Your task to perform on an android device: turn notification dots on Image 0: 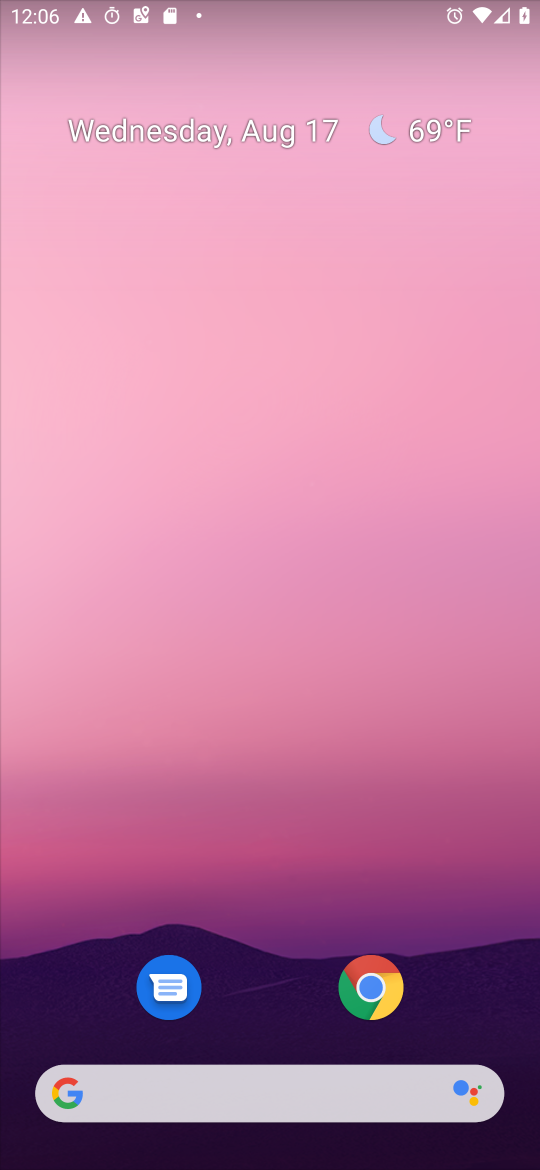
Step 0: drag from (177, 851) to (235, 601)
Your task to perform on an android device: turn notification dots on Image 1: 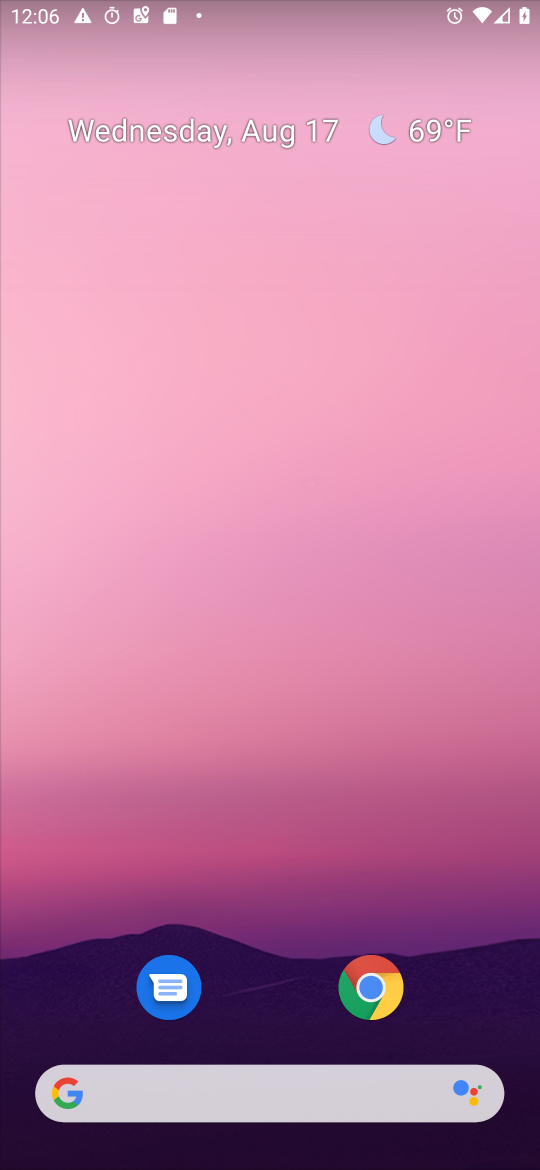
Step 1: drag from (20, 1166) to (204, 633)
Your task to perform on an android device: turn notification dots on Image 2: 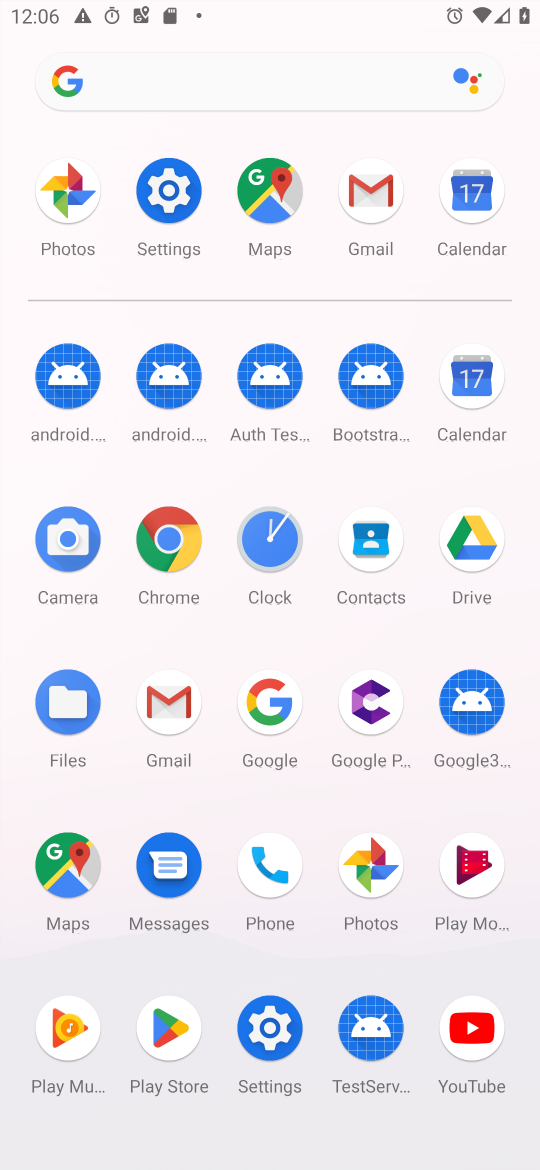
Step 2: click (281, 1025)
Your task to perform on an android device: turn notification dots on Image 3: 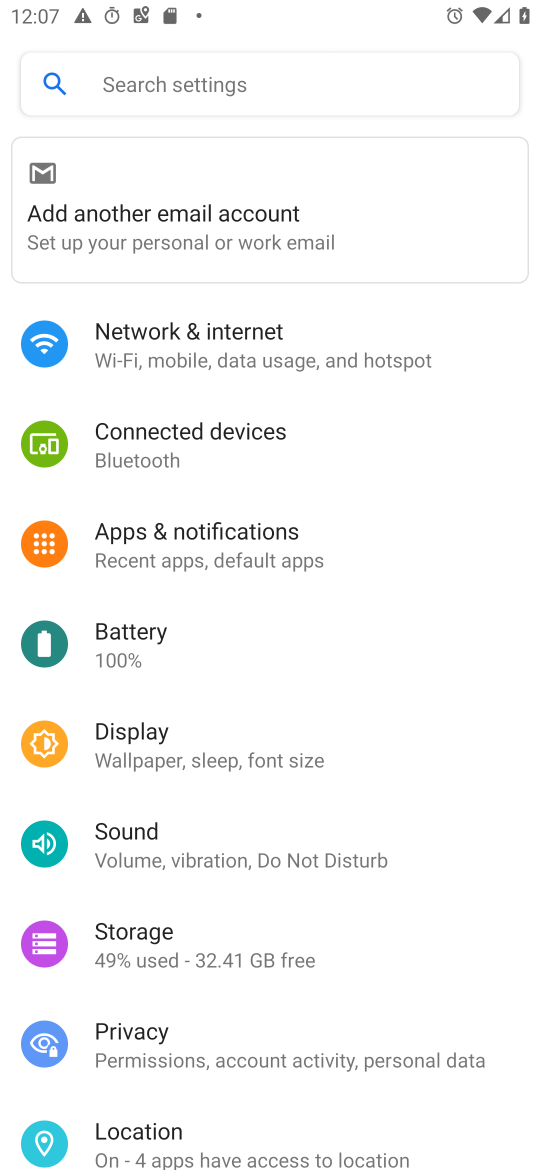
Step 3: click (251, 547)
Your task to perform on an android device: turn notification dots on Image 4: 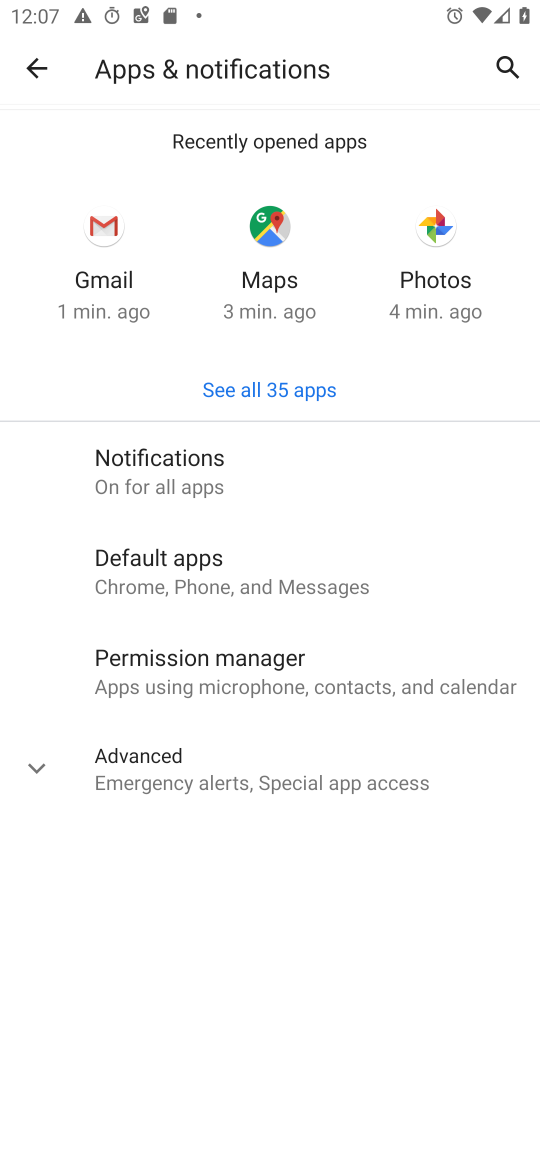
Step 4: click (166, 487)
Your task to perform on an android device: turn notification dots on Image 5: 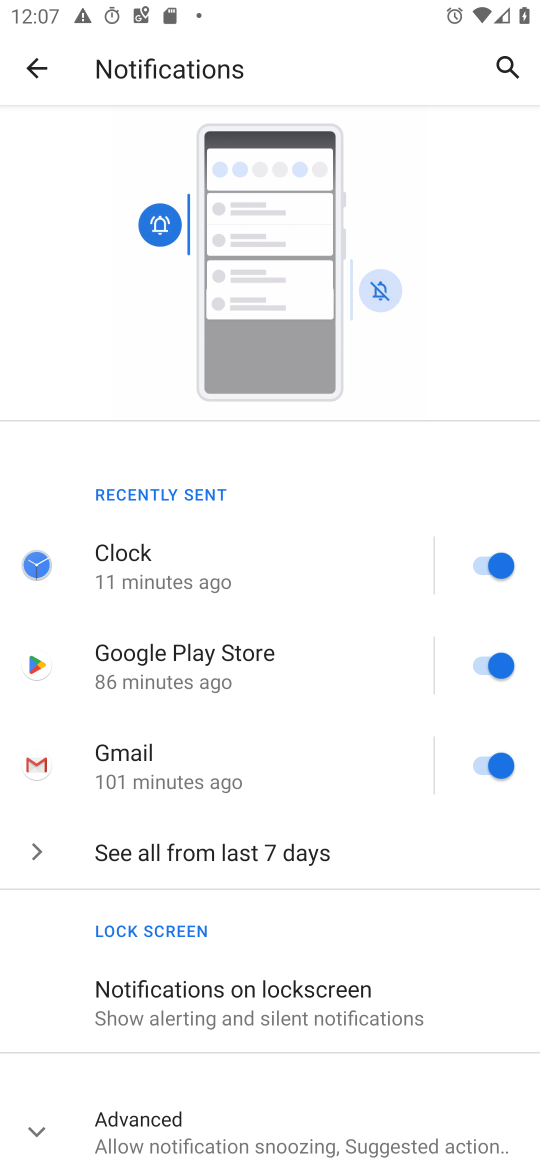
Step 5: click (127, 1130)
Your task to perform on an android device: turn notification dots on Image 6: 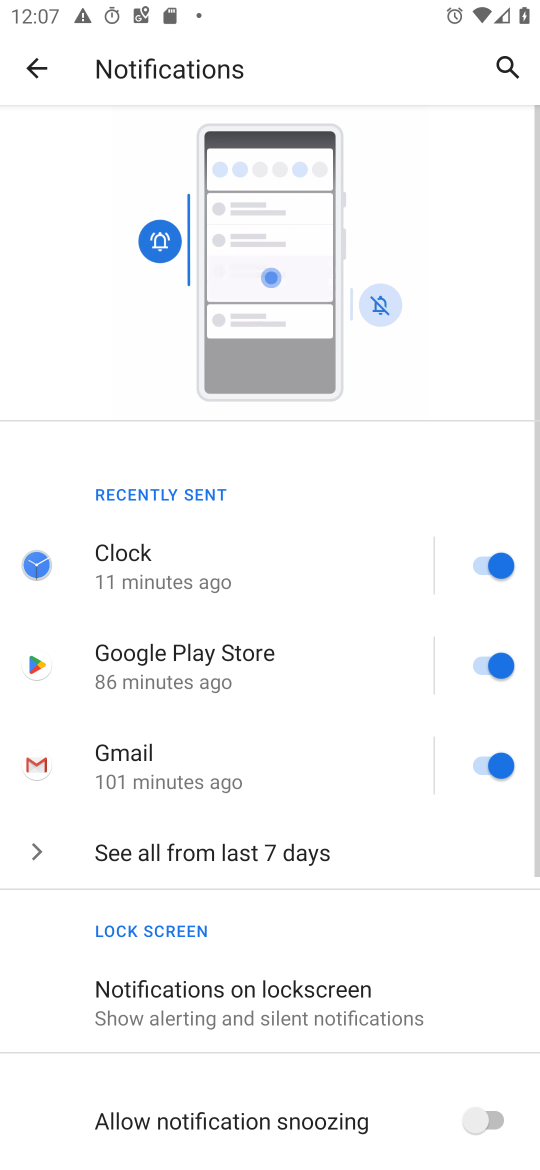
Step 6: drag from (28, 977) to (196, 393)
Your task to perform on an android device: turn notification dots on Image 7: 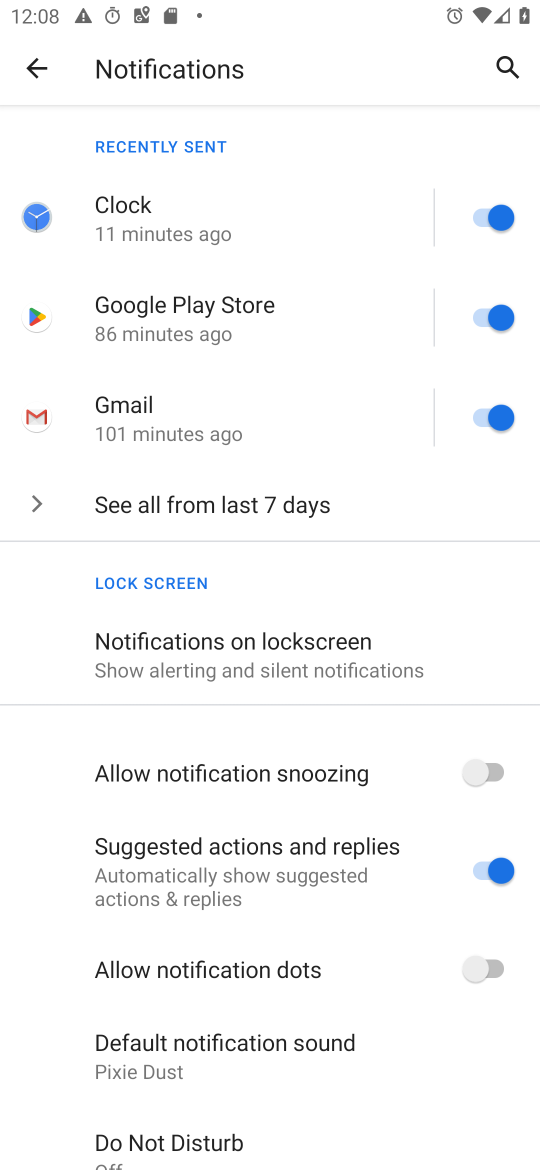
Step 7: drag from (26, 1124) to (118, 435)
Your task to perform on an android device: turn notification dots on Image 8: 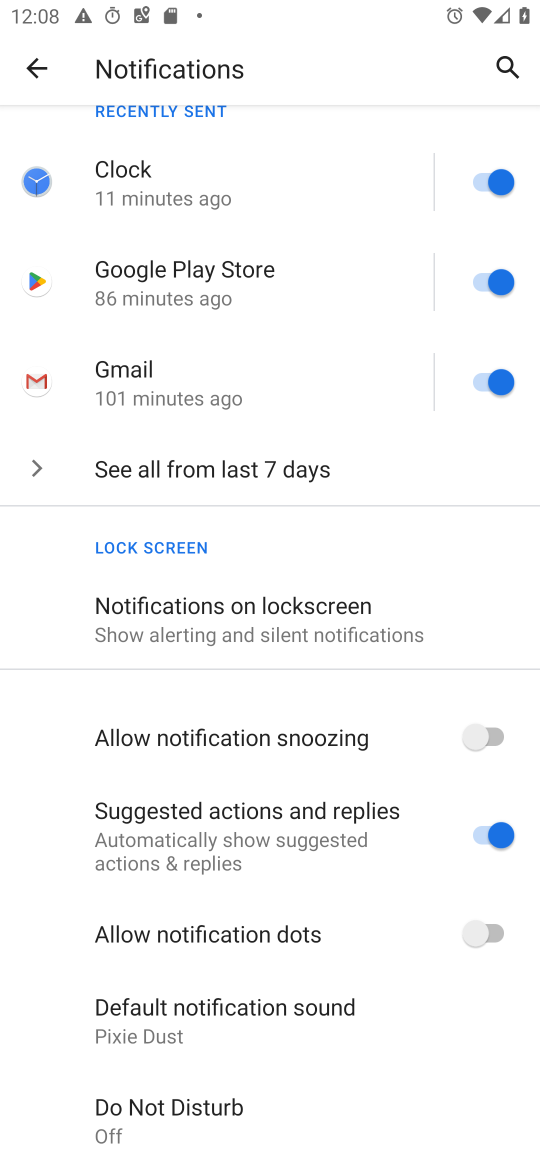
Step 8: click (483, 928)
Your task to perform on an android device: turn notification dots on Image 9: 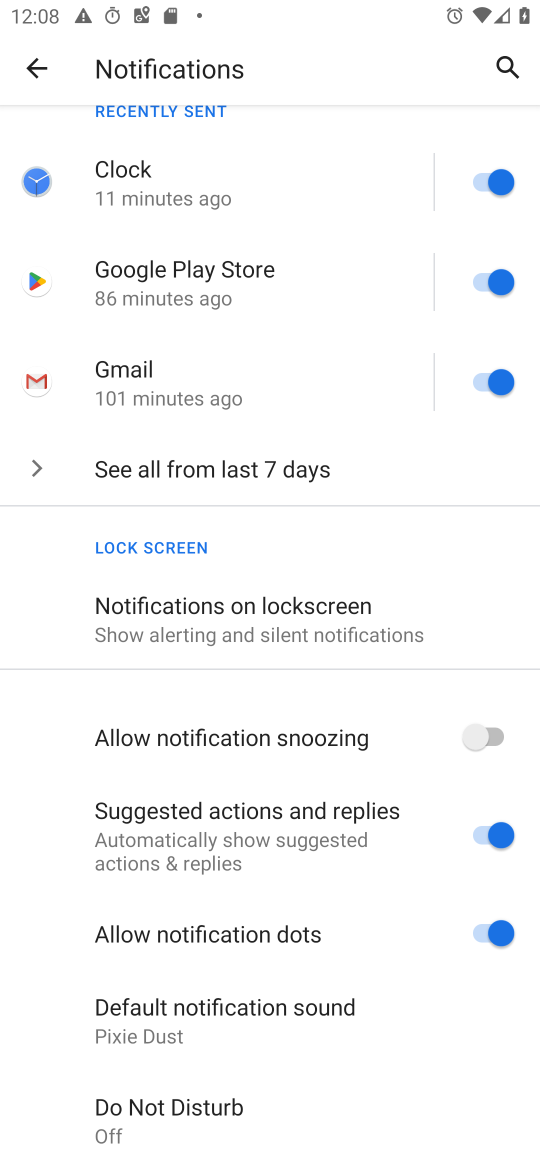
Step 9: task complete